Your task to perform on an android device: Clear the cart on walmart.com. Add "jbl charge 4" to the cart on walmart.com, then select checkout. Image 0: 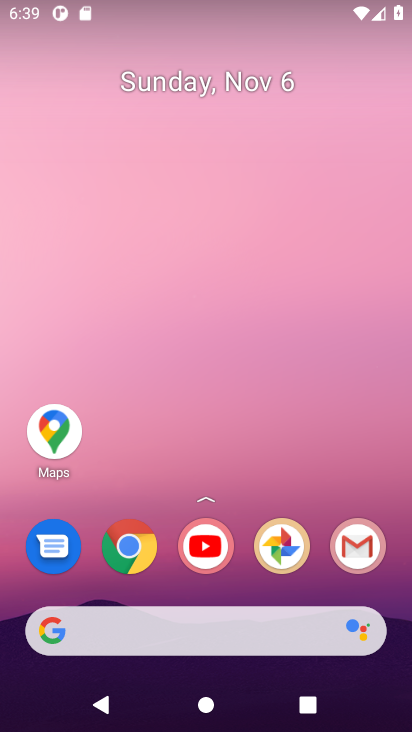
Step 0: click (131, 559)
Your task to perform on an android device: Clear the cart on walmart.com. Add "jbl charge 4" to the cart on walmart.com, then select checkout. Image 1: 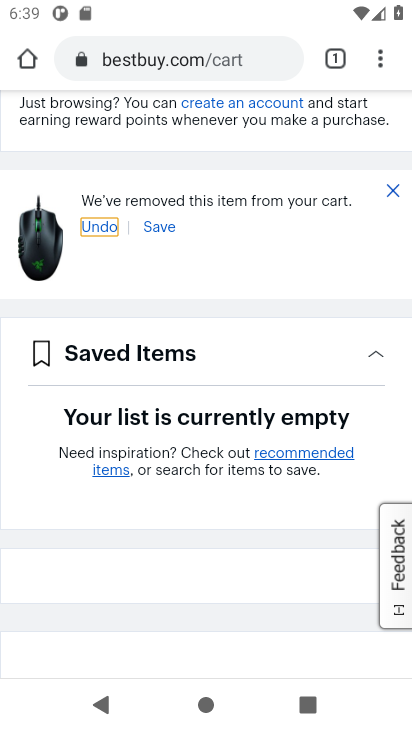
Step 1: click (194, 62)
Your task to perform on an android device: Clear the cart on walmart.com. Add "jbl charge 4" to the cart on walmart.com, then select checkout. Image 2: 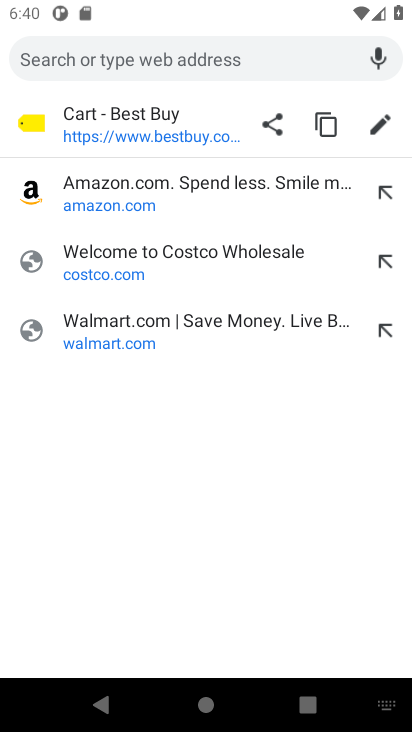
Step 2: click (112, 343)
Your task to perform on an android device: Clear the cart on walmart.com. Add "jbl charge 4" to the cart on walmart.com, then select checkout. Image 3: 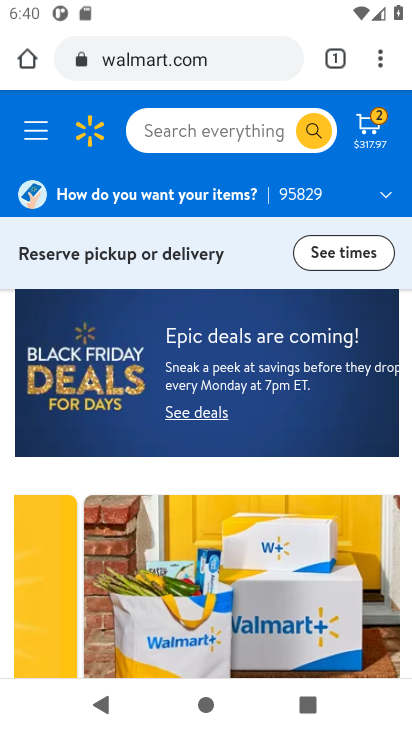
Step 3: click (368, 129)
Your task to perform on an android device: Clear the cart on walmart.com. Add "jbl charge 4" to the cart on walmart.com, then select checkout. Image 4: 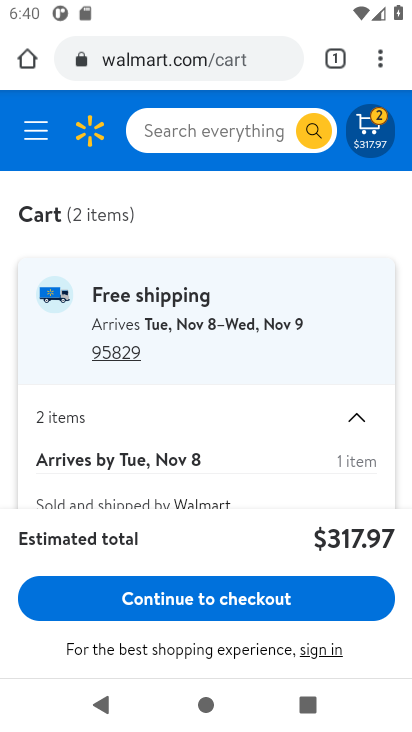
Step 4: drag from (232, 467) to (238, 138)
Your task to perform on an android device: Clear the cart on walmart.com. Add "jbl charge 4" to the cart on walmart.com, then select checkout. Image 5: 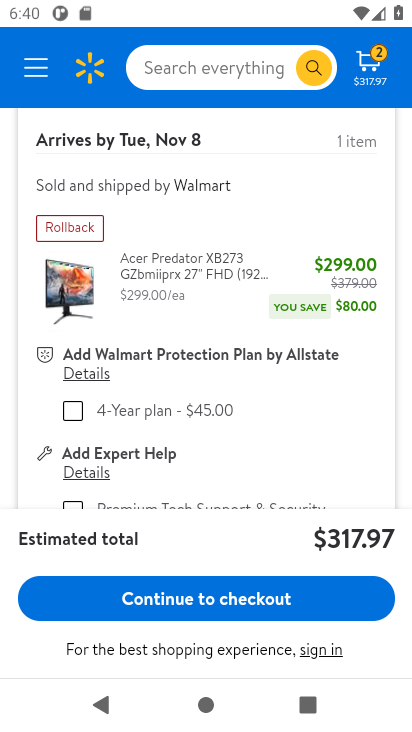
Step 5: drag from (231, 266) to (236, 415)
Your task to perform on an android device: Clear the cart on walmart.com. Add "jbl charge 4" to the cart on walmart.com, then select checkout. Image 6: 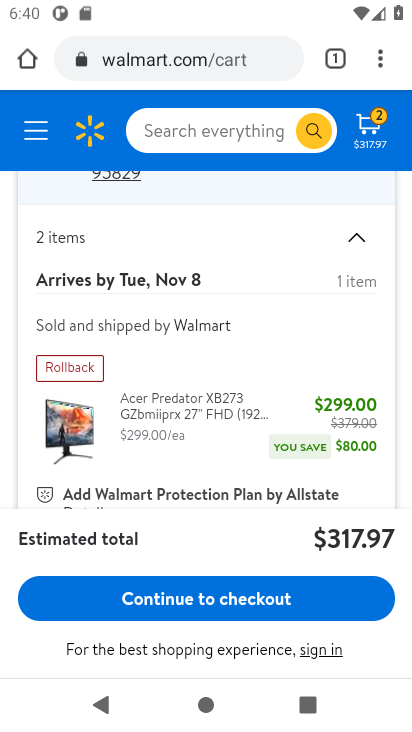
Step 6: drag from (246, 316) to (255, 454)
Your task to perform on an android device: Clear the cart on walmart.com. Add "jbl charge 4" to the cart on walmart.com, then select checkout. Image 7: 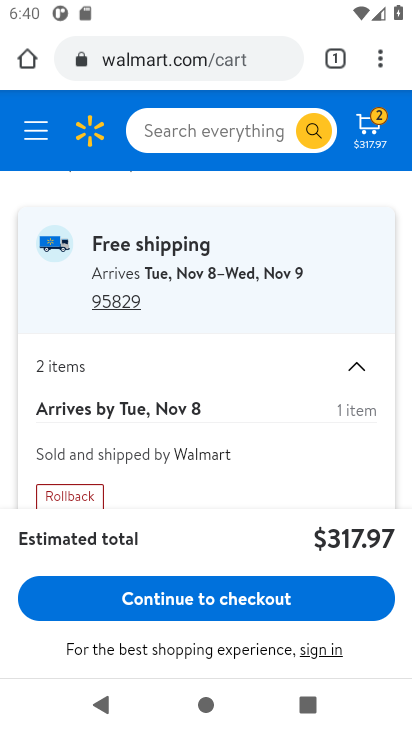
Step 7: drag from (245, 418) to (240, 206)
Your task to perform on an android device: Clear the cart on walmart.com. Add "jbl charge 4" to the cart on walmart.com, then select checkout. Image 8: 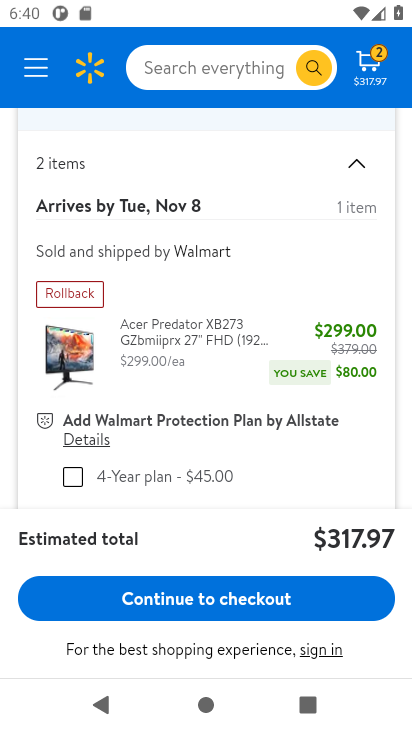
Step 8: drag from (212, 467) to (212, 292)
Your task to perform on an android device: Clear the cart on walmart.com. Add "jbl charge 4" to the cart on walmart.com, then select checkout. Image 9: 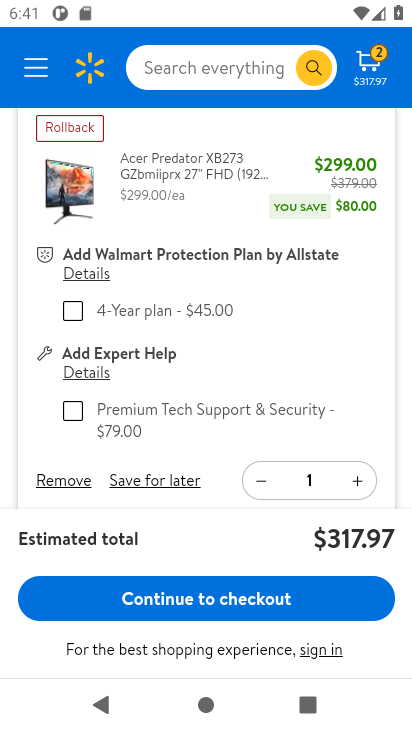
Step 9: click (68, 477)
Your task to perform on an android device: Clear the cart on walmart.com. Add "jbl charge 4" to the cart on walmart.com, then select checkout. Image 10: 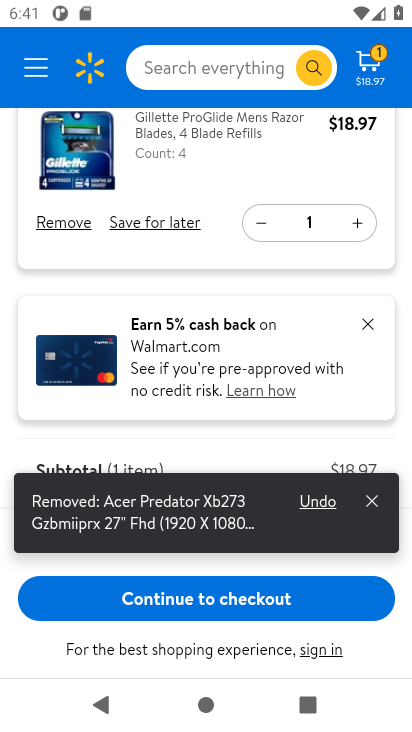
Step 10: click (80, 223)
Your task to perform on an android device: Clear the cart on walmart.com. Add "jbl charge 4" to the cart on walmart.com, then select checkout. Image 11: 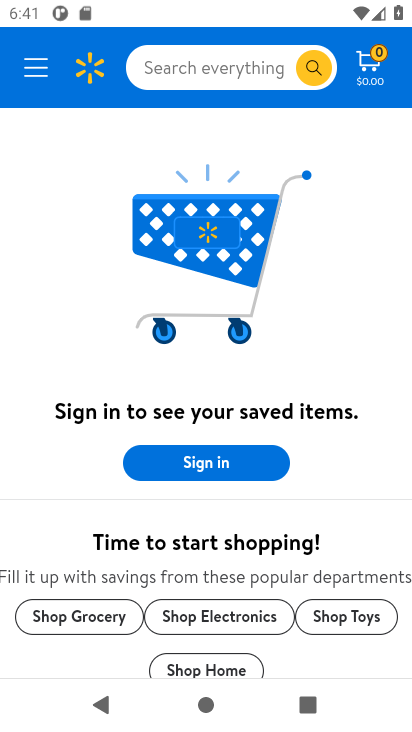
Step 11: click (170, 78)
Your task to perform on an android device: Clear the cart on walmart.com. Add "jbl charge 4" to the cart on walmart.com, then select checkout. Image 12: 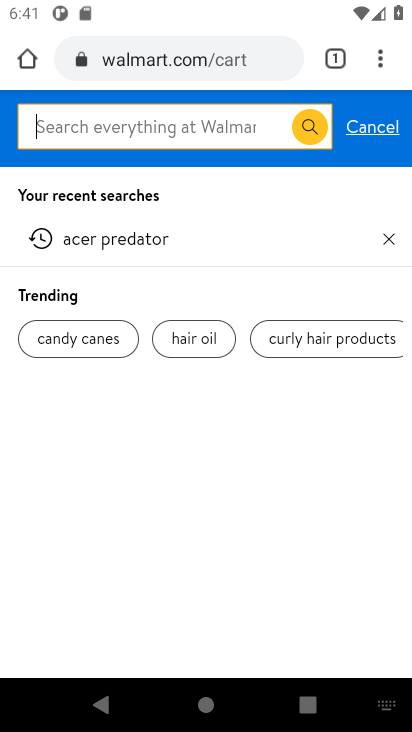
Step 12: type "jbl charge 4"
Your task to perform on an android device: Clear the cart on walmart.com. Add "jbl charge 4" to the cart on walmart.com, then select checkout. Image 13: 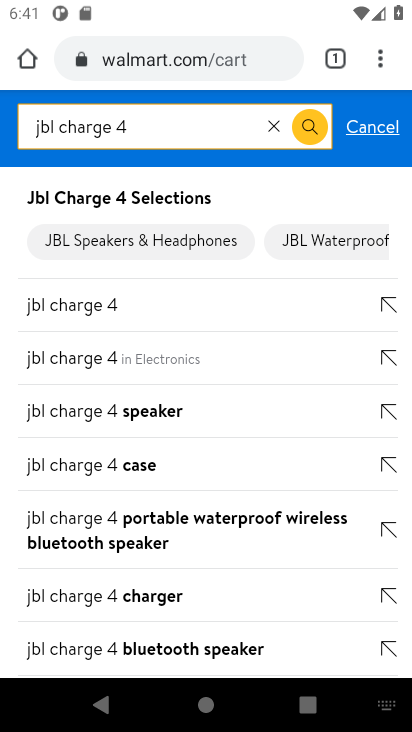
Step 13: click (66, 306)
Your task to perform on an android device: Clear the cart on walmart.com. Add "jbl charge 4" to the cart on walmart.com, then select checkout. Image 14: 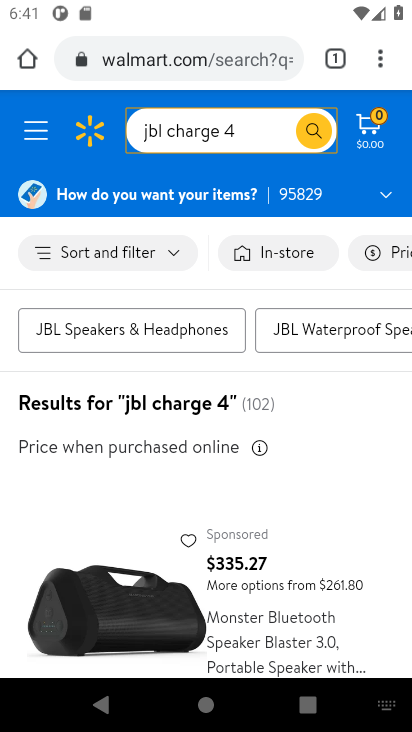
Step 14: drag from (160, 491) to (162, 273)
Your task to perform on an android device: Clear the cart on walmart.com. Add "jbl charge 4" to the cart on walmart.com, then select checkout. Image 15: 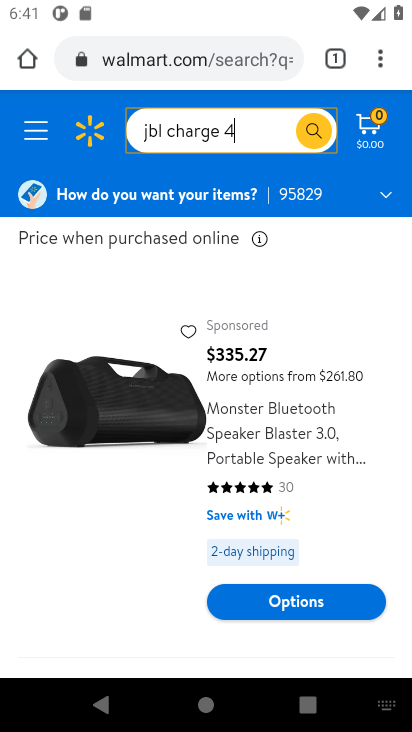
Step 15: drag from (187, 510) to (175, 211)
Your task to perform on an android device: Clear the cart on walmart.com. Add "jbl charge 4" to the cart on walmart.com, then select checkout. Image 16: 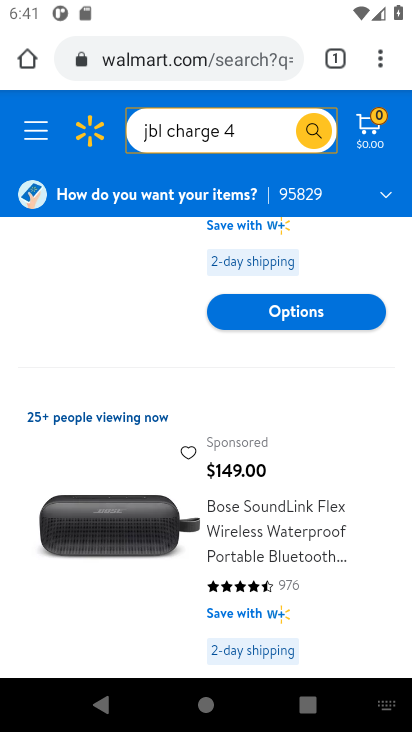
Step 16: drag from (109, 565) to (141, 284)
Your task to perform on an android device: Clear the cart on walmart.com. Add "jbl charge 4" to the cart on walmart.com, then select checkout. Image 17: 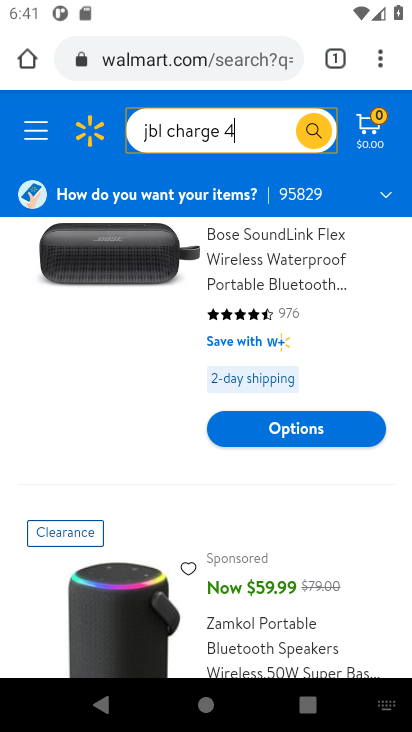
Step 17: drag from (125, 563) to (134, 332)
Your task to perform on an android device: Clear the cart on walmart.com. Add "jbl charge 4" to the cart on walmart.com, then select checkout. Image 18: 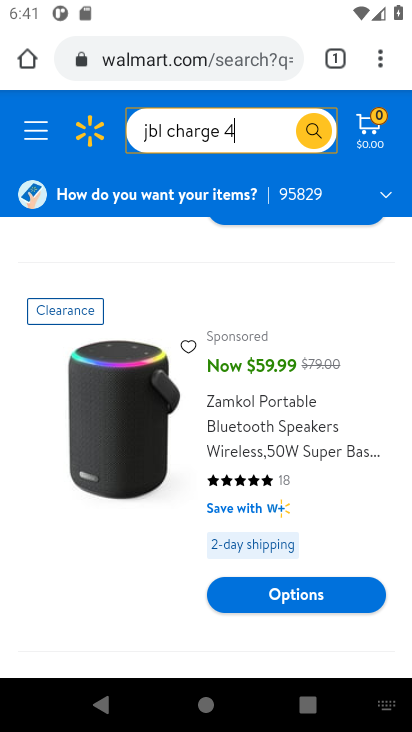
Step 18: drag from (123, 569) to (125, 248)
Your task to perform on an android device: Clear the cart on walmart.com. Add "jbl charge 4" to the cart on walmart.com, then select checkout. Image 19: 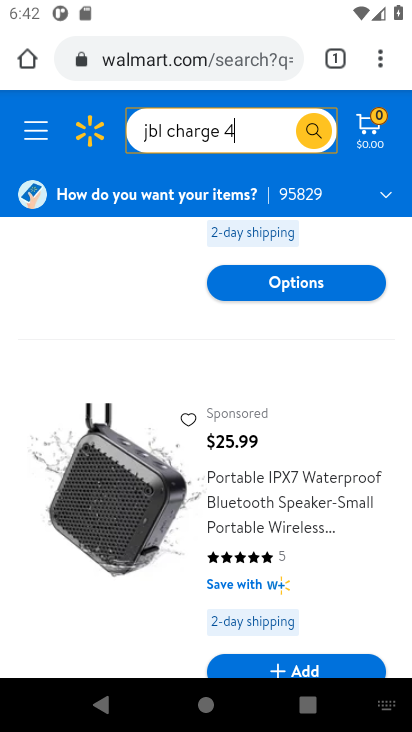
Step 19: drag from (100, 536) to (104, 290)
Your task to perform on an android device: Clear the cart on walmart.com. Add "jbl charge 4" to the cart on walmart.com, then select checkout. Image 20: 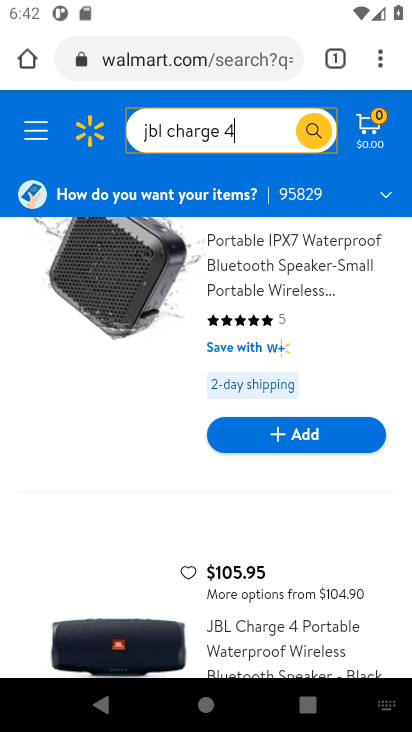
Step 20: drag from (93, 594) to (112, 350)
Your task to perform on an android device: Clear the cart on walmart.com. Add "jbl charge 4" to the cart on walmart.com, then select checkout. Image 21: 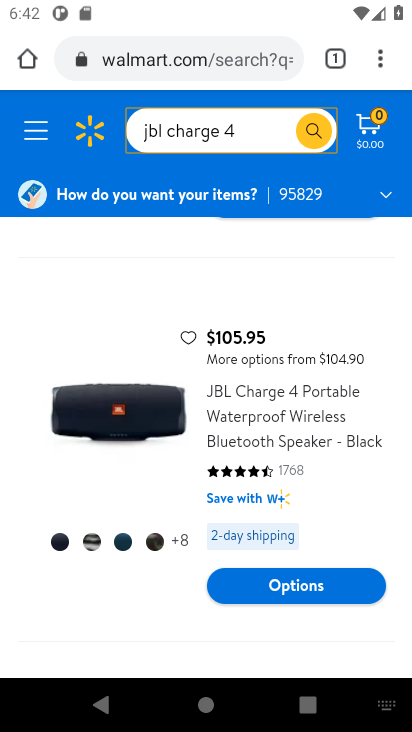
Step 21: click (173, 426)
Your task to perform on an android device: Clear the cart on walmart.com. Add "jbl charge 4" to the cart on walmart.com, then select checkout. Image 22: 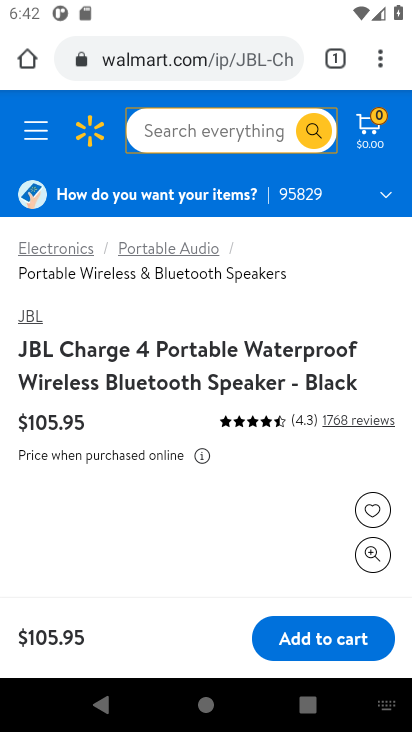
Step 22: click (335, 637)
Your task to perform on an android device: Clear the cart on walmart.com. Add "jbl charge 4" to the cart on walmart.com, then select checkout. Image 23: 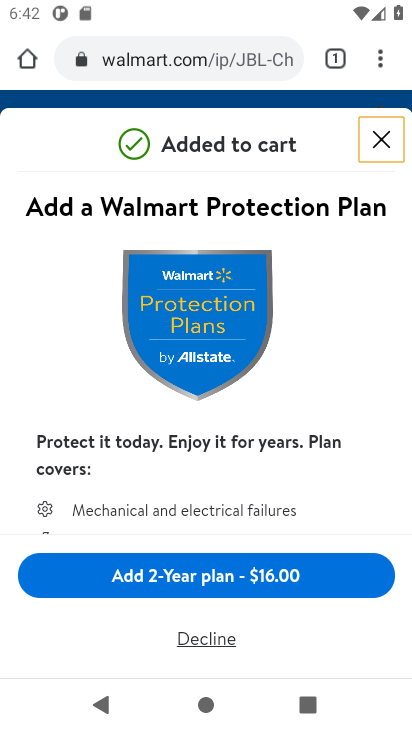
Step 23: click (387, 134)
Your task to perform on an android device: Clear the cart on walmart.com. Add "jbl charge 4" to the cart on walmart.com, then select checkout. Image 24: 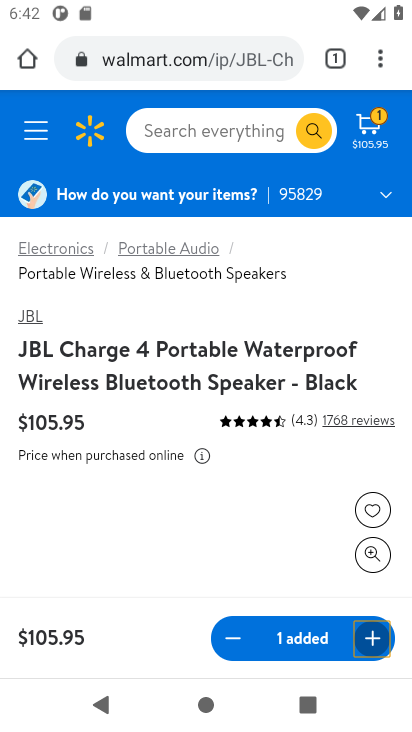
Step 24: click (372, 126)
Your task to perform on an android device: Clear the cart on walmart.com. Add "jbl charge 4" to the cart on walmart.com, then select checkout. Image 25: 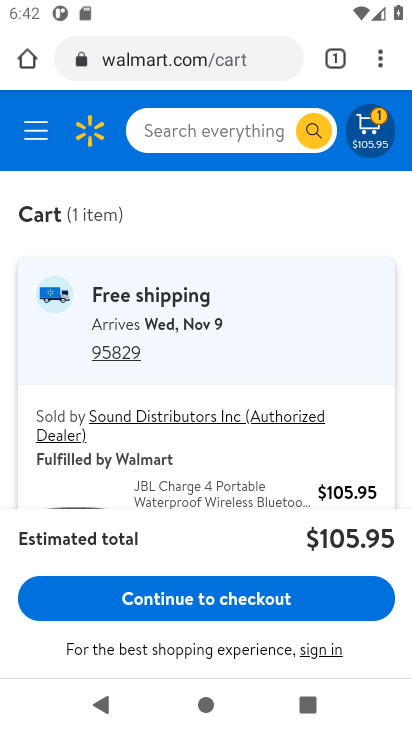
Step 25: click (240, 596)
Your task to perform on an android device: Clear the cart on walmart.com. Add "jbl charge 4" to the cart on walmart.com, then select checkout. Image 26: 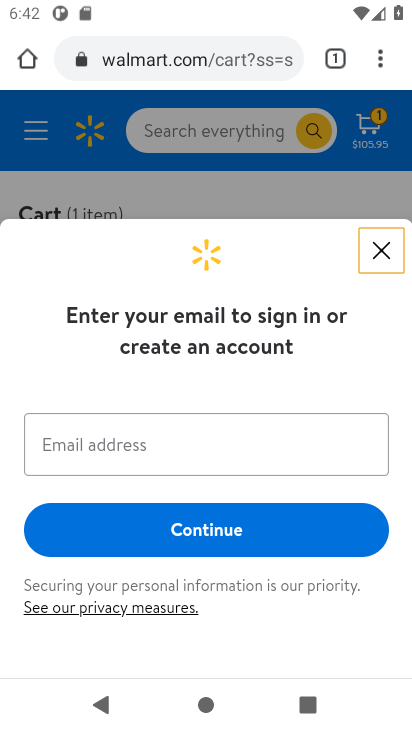
Step 26: task complete